Your task to perform on an android device: Open eBay Image 0: 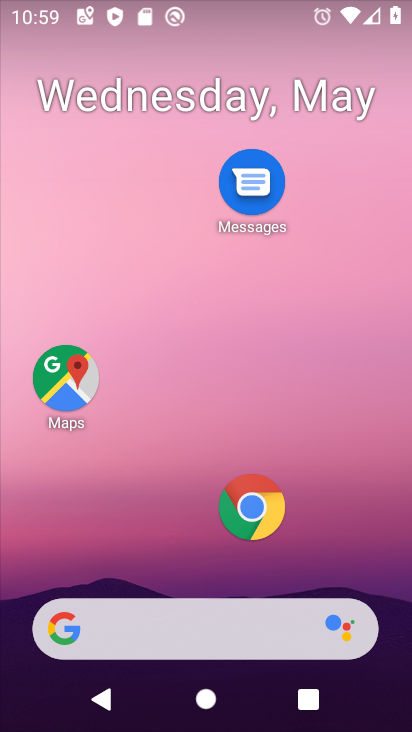
Step 0: press home button
Your task to perform on an android device: Open eBay Image 1: 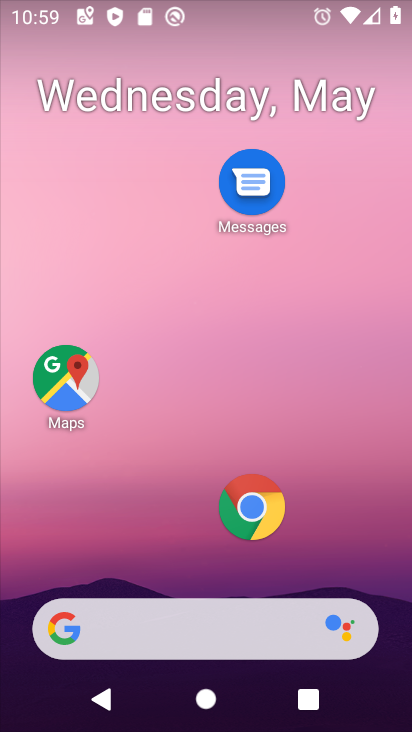
Step 1: click (247, 498)
Your task to perform on an android device: Open eBay Image 2: 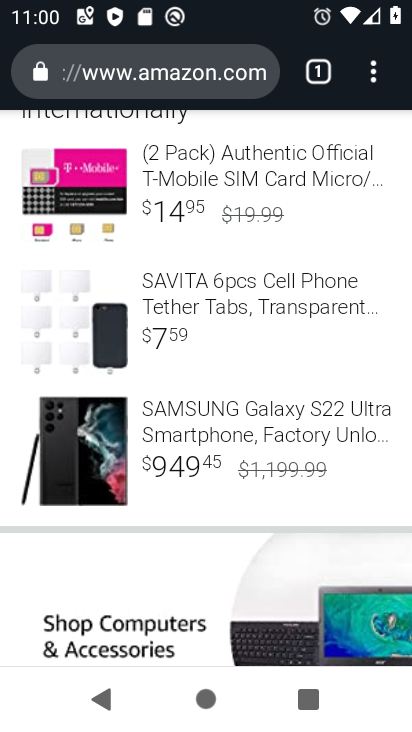
Step 2: click (324, 70)
Your task to perform on an android device: Open eBay Image 3: 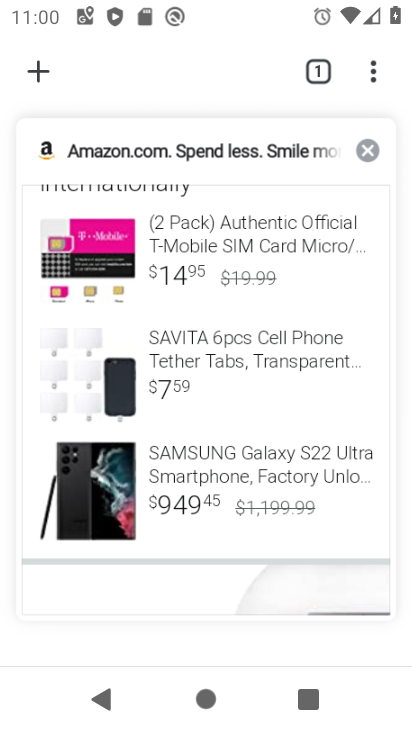
Step 3: click (362, 144)
Your task to perform on an android device: Open eBay Image 4: 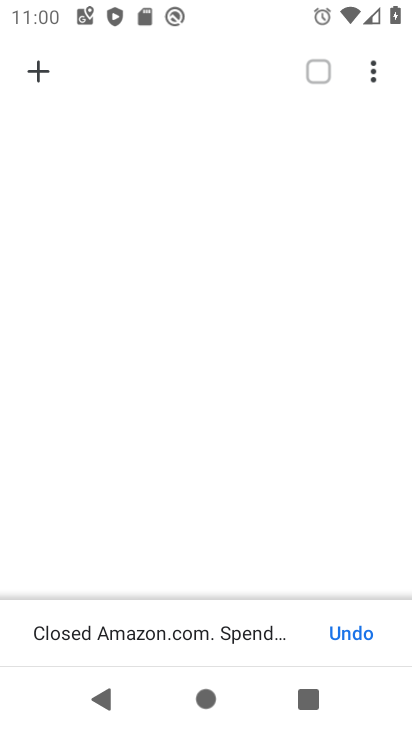
Step 4: click (36, 69)
Your task to perform on an android device: Open eBay Image 5: 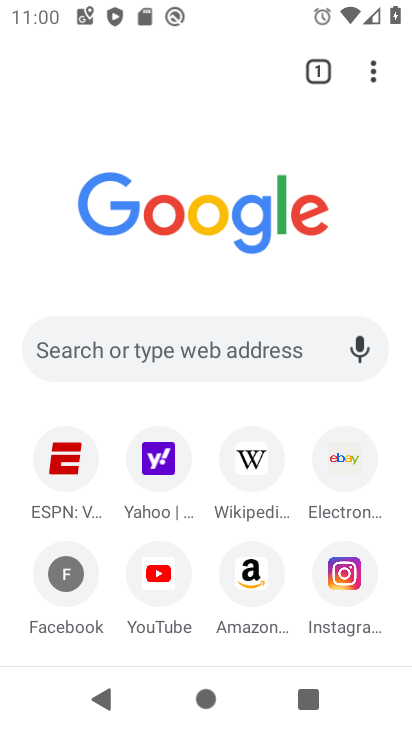
Step 5: click (342, 462)
Your task to perform on an android device: Open eBay Image 6: 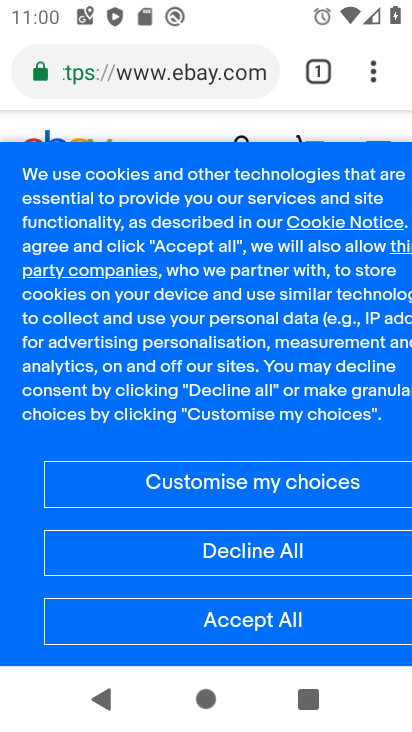
Step 6: click (273, 621)
Your task to perform on an android device: Open eBay Image 7: 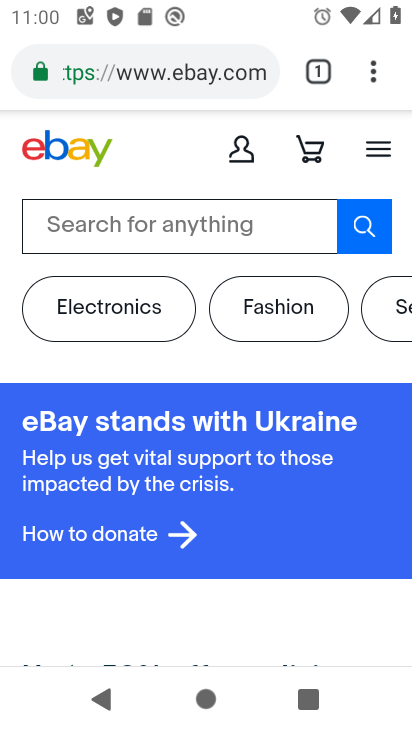
Step 7: task complete